Your task to perform on an android device: Open maps Image 0: 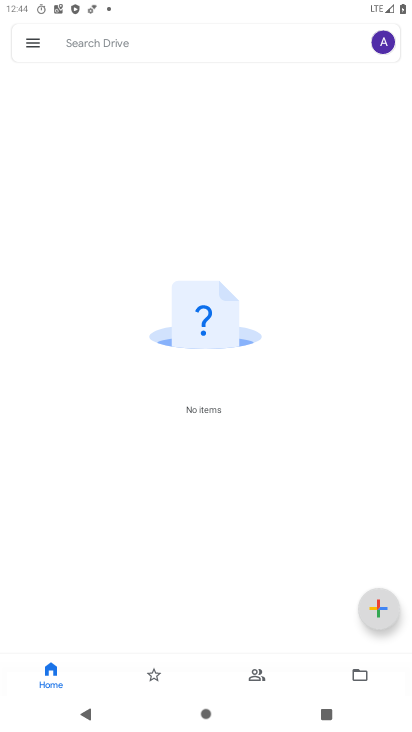
Step 0: press home button
Your task to perform on an android device: Open maps Image 1: 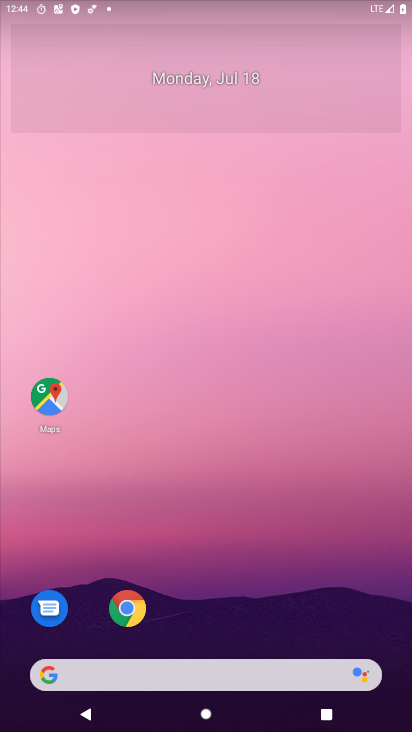
Step 1: drag from (277, 565) to (404, 18)
Your task to perform on an android device: Open maps Image 2: 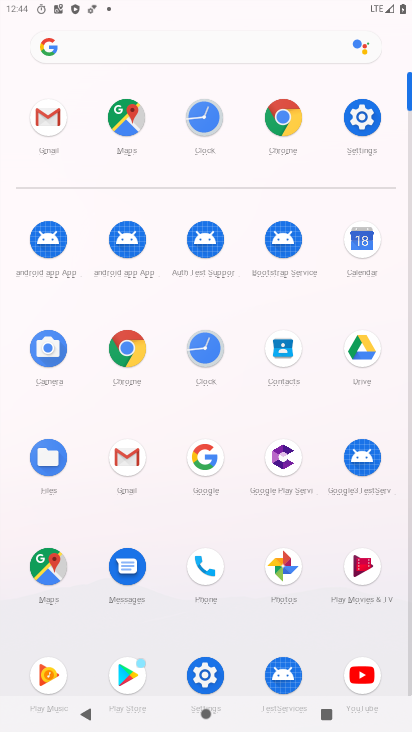
Step 2: click (21, 566)
Your task to perform on an android device: Open maps Image 3: 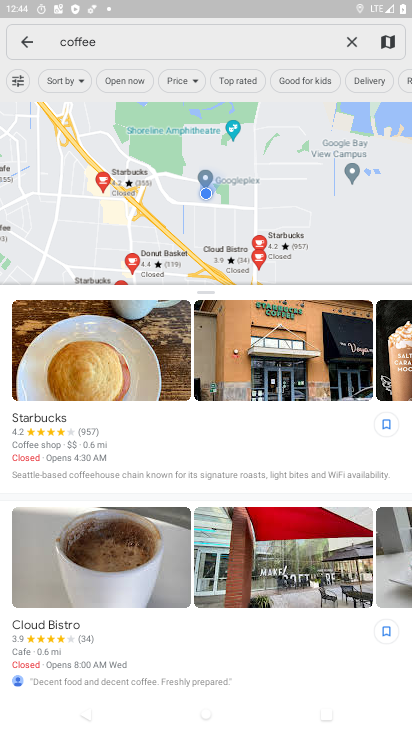
Step 3: task complete